Your task to perform on an android device: set the timer Image 0: 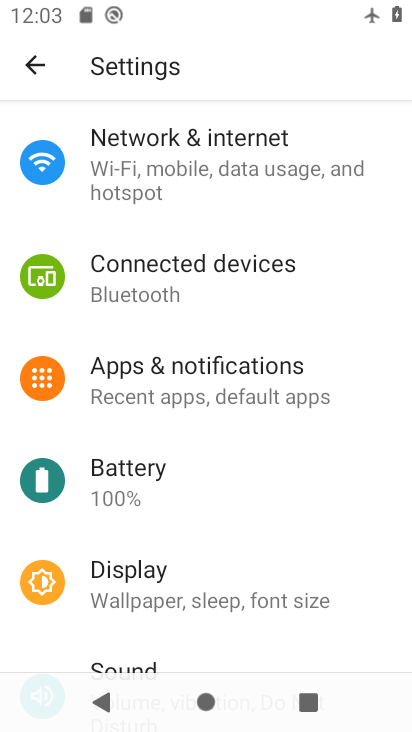
Step 0: press back button
Your task to perform on an android device: set the timer Image 1: 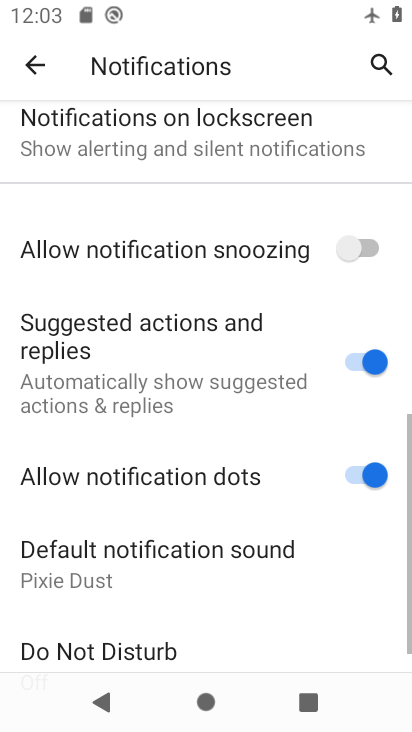
Step 1: press back button
Your task to perform on an android device: set the timer Image 2: 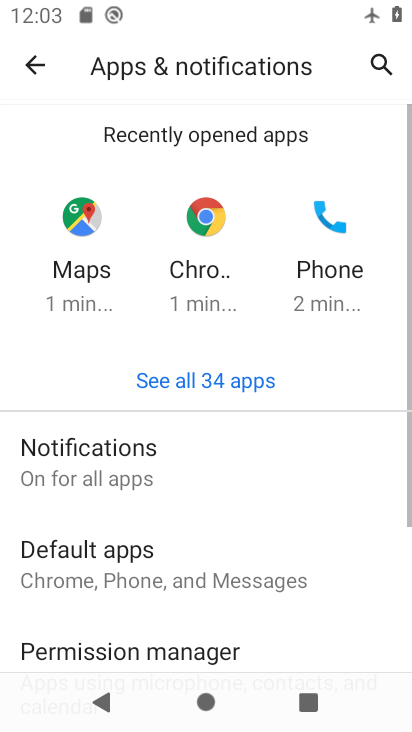
Step 2: press back button
Your task to perform on an android device: set the timer Image 3: 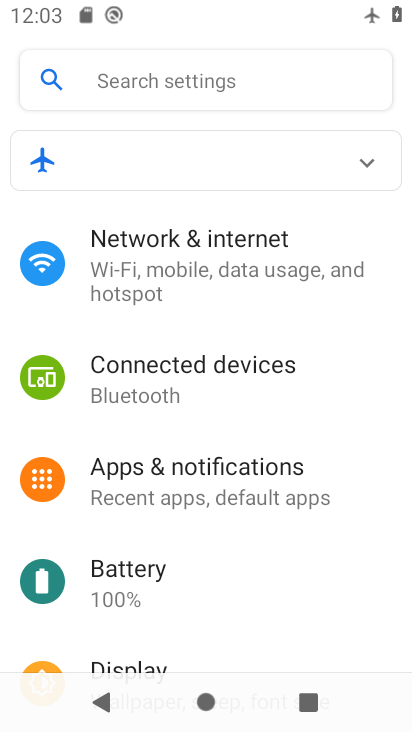
Step 3: press back button
Your task to perform on an android device: set the timer Image 4: 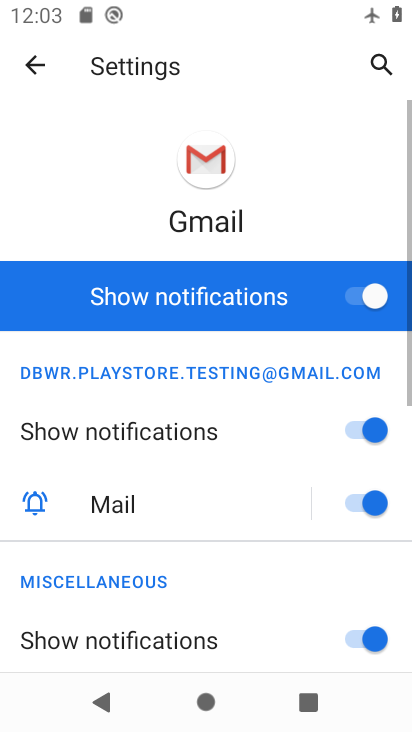
Step 4: press back button
Your task to perform on an android device: set the timer Image 5: 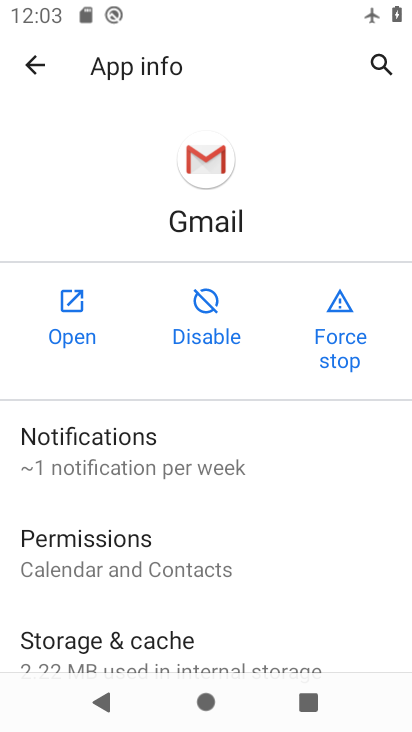
Step 5: drag from (194, 590) to (297, 258)
Your task to perform on an android device: set the timer Image 6: 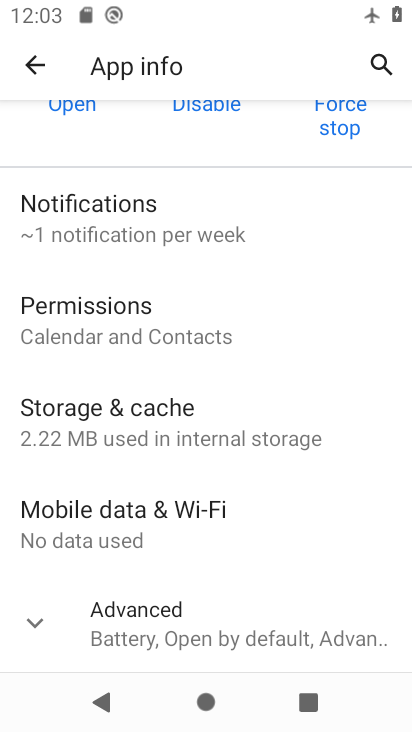
Step 6: drag from (198, 619) to (286, 212)
Your task to perform on an android device: set the timer Image 7: 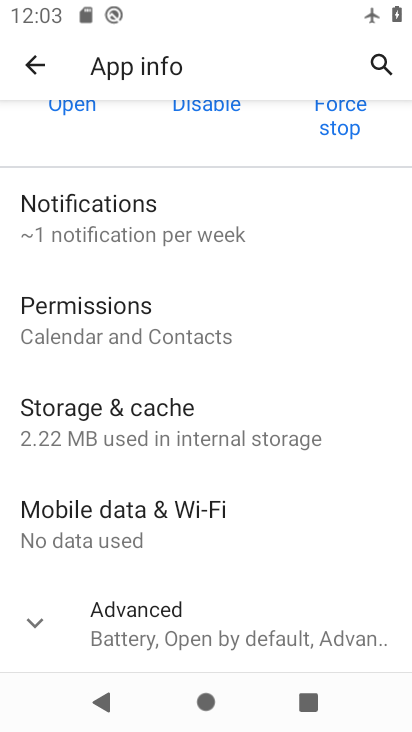
Step 7: press back button
Your task to perform on an android device: set the timer Image 8: 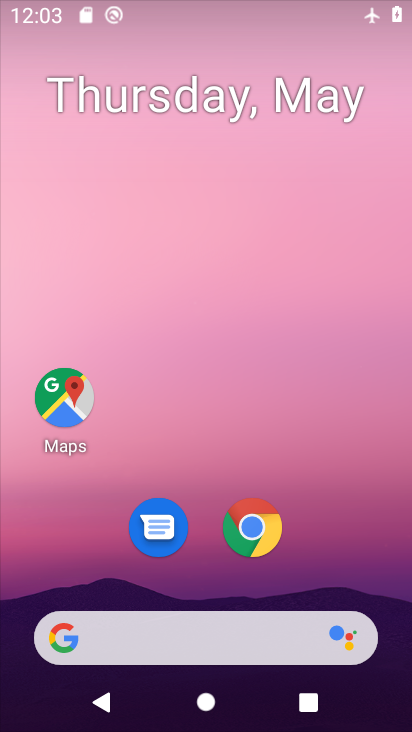
Step 8: drag from (266, 478) to (315, 126)
Your task to perform on an android device: set the timer Image 9: 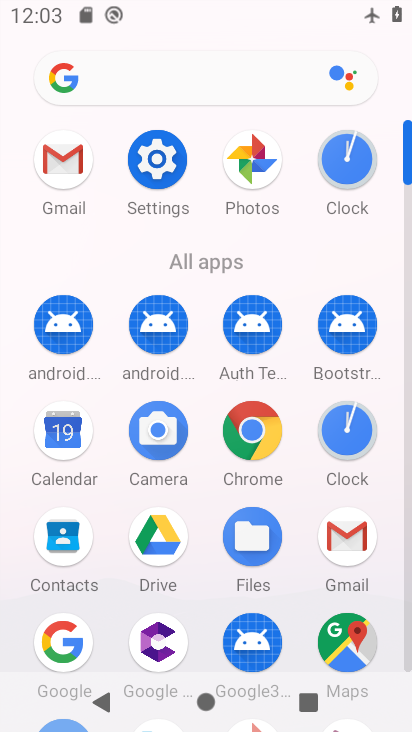
Step 9: click (351, 160)
Your task to perform on an android device: set the timer Image 10: 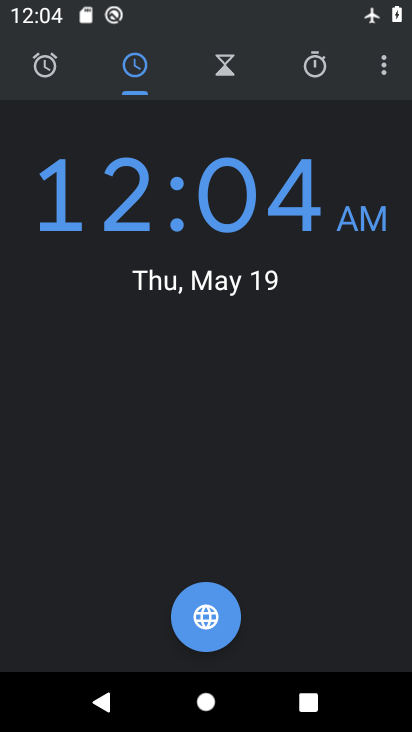
Step 10: click (211, 73)
Your task to perform on an android device: set the timer Image 11: 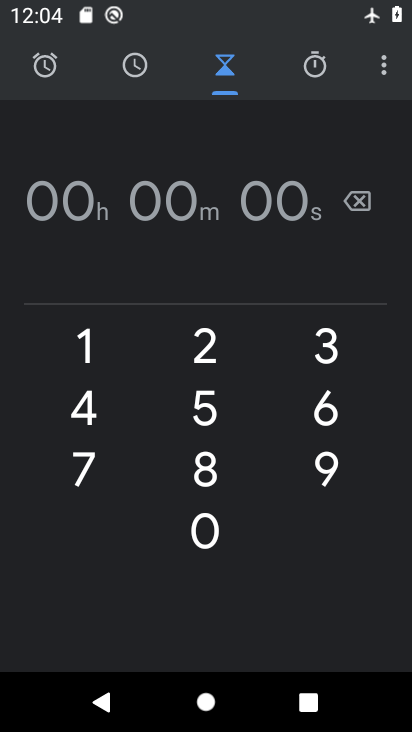
Step 11: click (217, 339)
Your task to perform on an android device: set the timer Image 12: 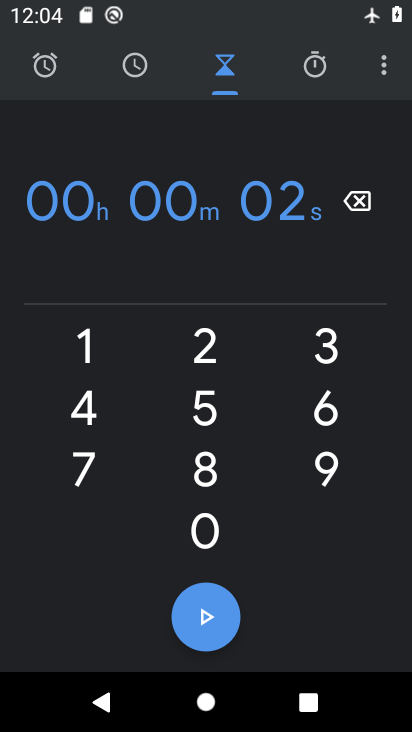
Step 12: click (207, 398)
Your task to perform on an android device: set the timer Image 13: 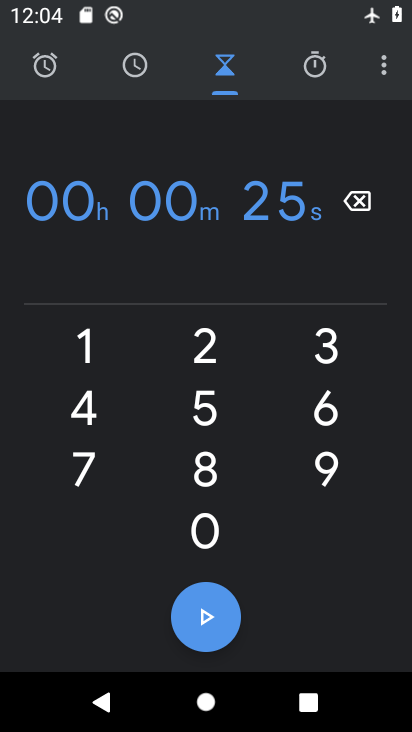
Step 13: click (325, 331)
Your task to perform on an android device: set the timer Image 14: 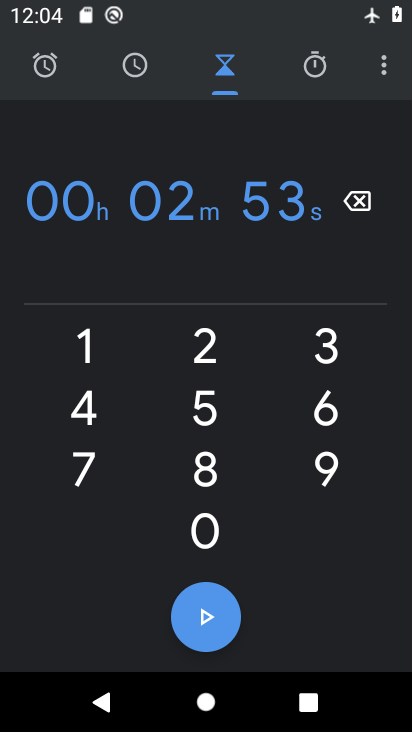
Step 14: click (201, 335)
Your task to perform on an android device: set the timer Image 15: 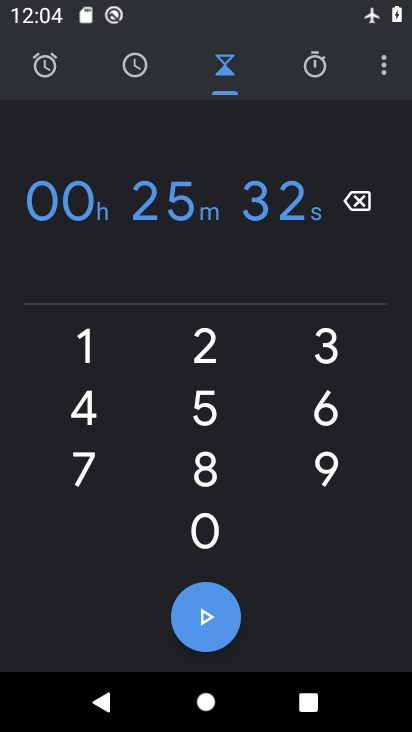
Step 15: task complete